Your task to perform on an android device: manage bookmarks in the chrome app Image 0: 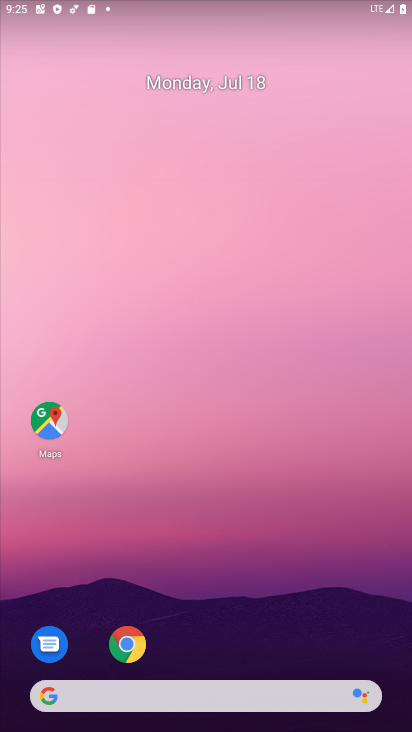
Step 0: drag from (187, 668) to (93, 37)
Your task to perform on an android device: manage bookmarks in the chrome app Image 1: 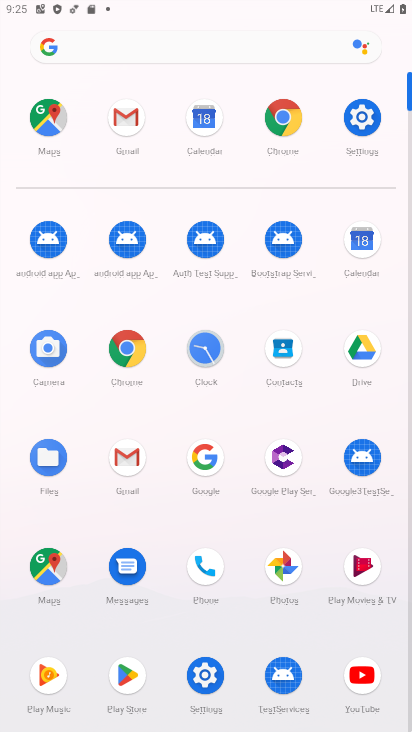
Step 1: click (299, 122)
Your task to perform on an android device: manage bookmarks in the chrome app Image 2: 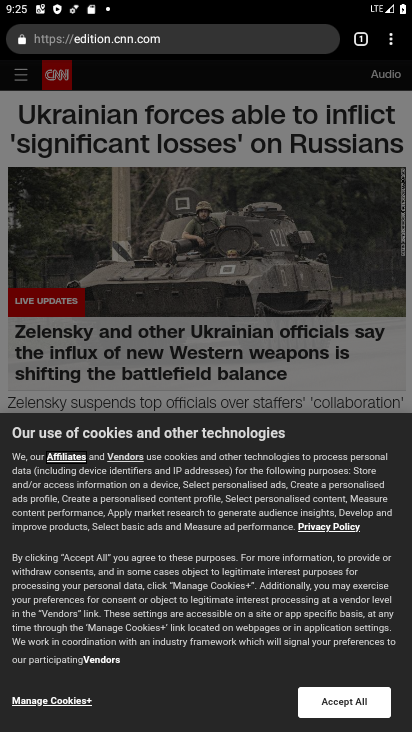
Step 2: click (367, 696)
Your task to perform on an android device: manage bookmarks in the chrome app Image 3: 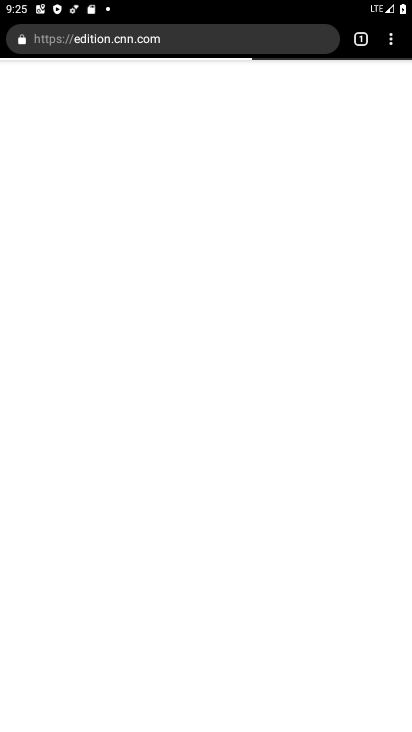
Step 3: drag from (390, 50) to (279, 143)
Your task to perform on an android device: manage bookmarks in the chrome app Image 4: 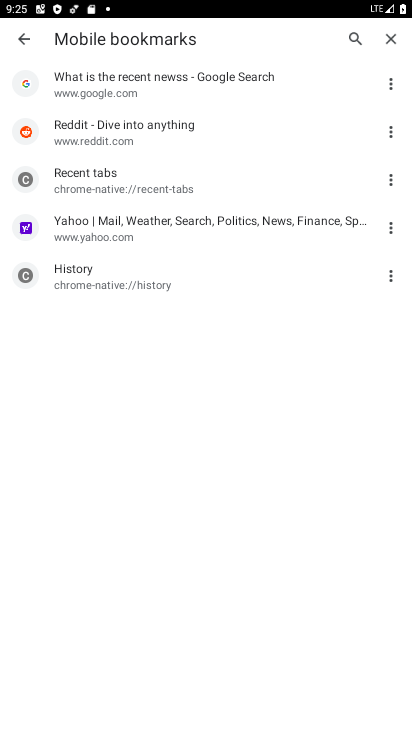
Step 4: click (392, 79)
Your task to perform on an android device: manage bookmarks in the chrome app Image 5: 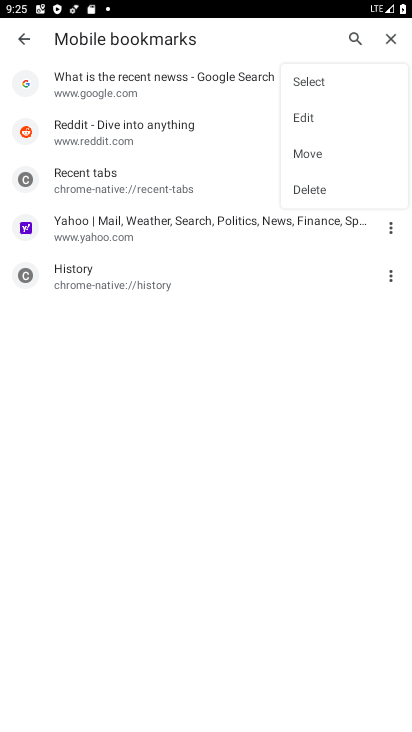
Step 5: click (295, 120)
Your task to perform on an android device: manage bookmarks in the chrome app Image 6: 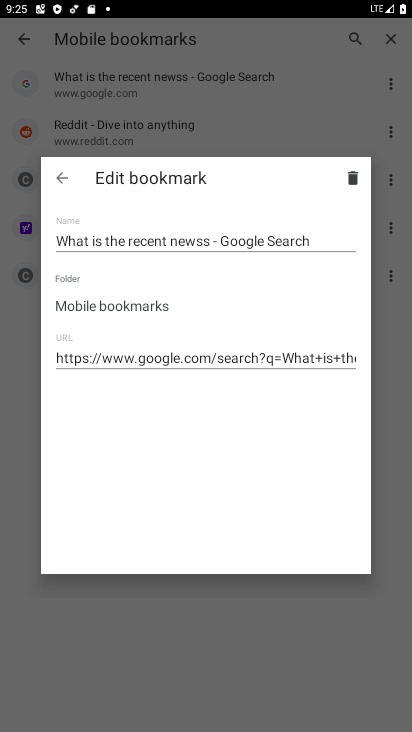
Step 6: click (357, 181)
Your task to perform on an android device: manage bookmarks in the chrome app Image 7: 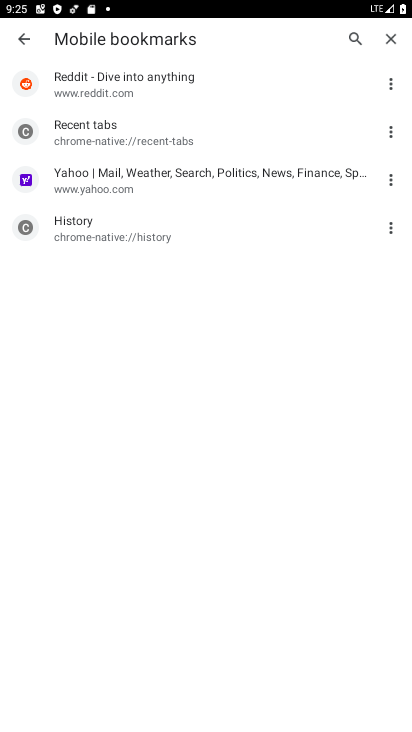
Step 7: task complete